Your task to perform on an android device: check android version Image 0: 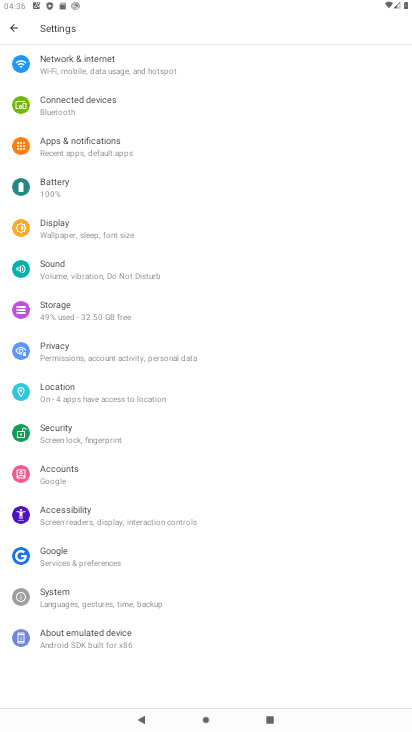
Step 0: click (74, 654)
Your task to perform on an android device: check android version Image 1: 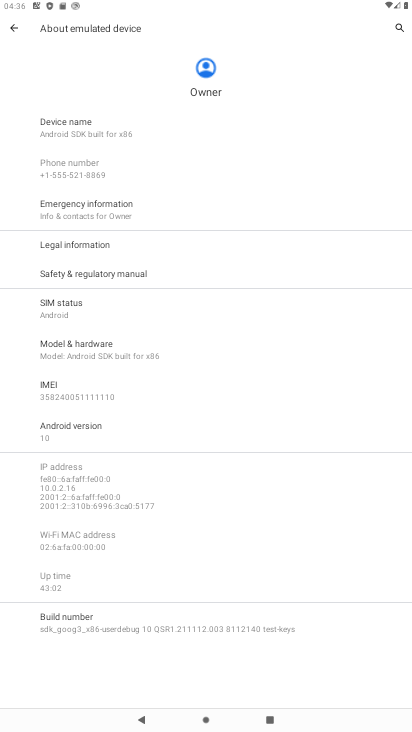
Step 1: click (98, 428)
Your task to perform on an android device: check android version Image 2: 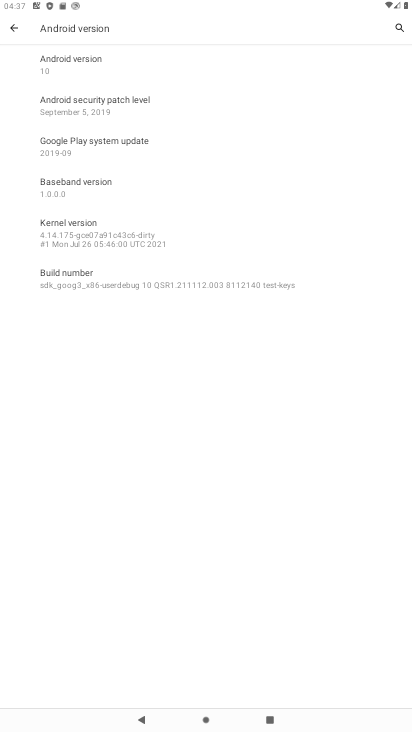
Step 2: task complete